Your task to perform on an android device: turn off wifi Image 0: 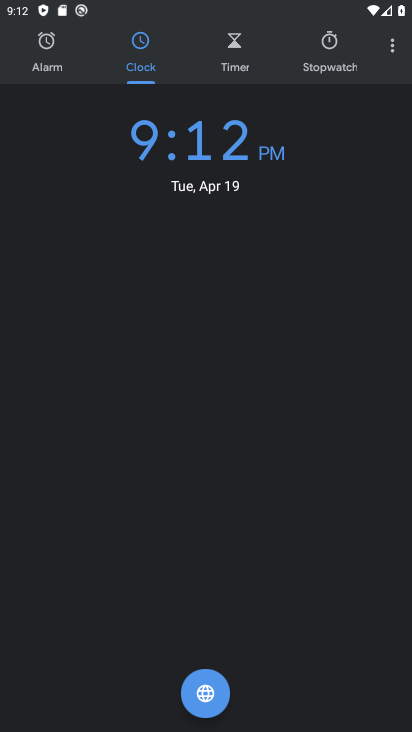
Step 0: press home button
Your task to perform on an android device: turn off wifi Image 1: 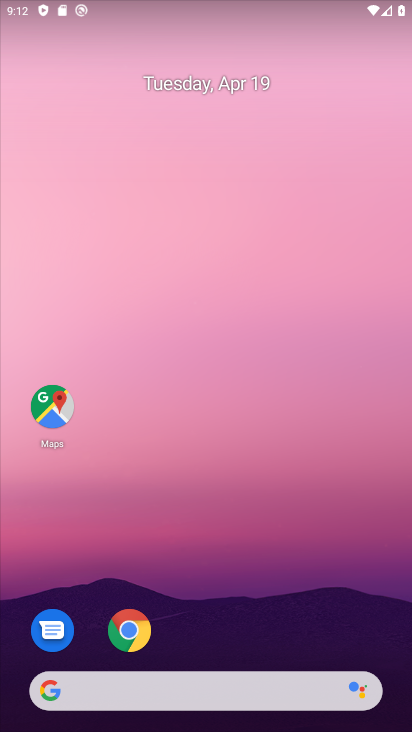
Step 1: drag from (215, 408) to (299, 0)
Your task to perform on an android device: turn off wifi Image 2: 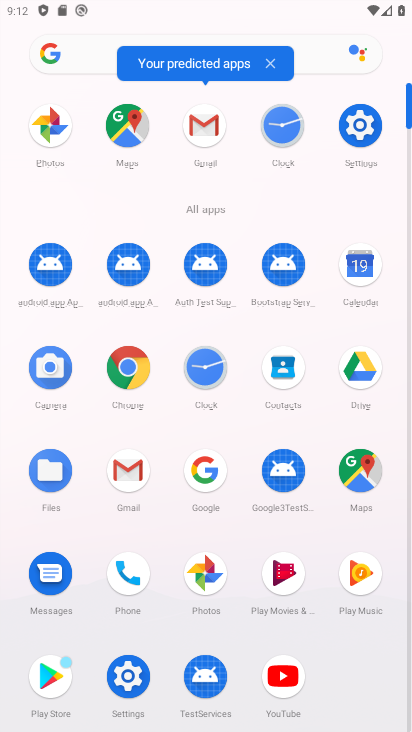
Step 2: click (299, 0)
Your task to perform on an android device: turn off wifi Image 3: 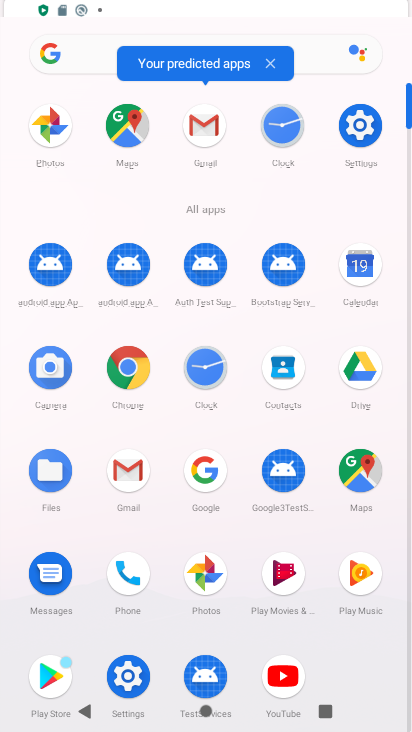
Step 3: click (363, 123)
Your task to perform on an android device: turn off wifi Image 4: 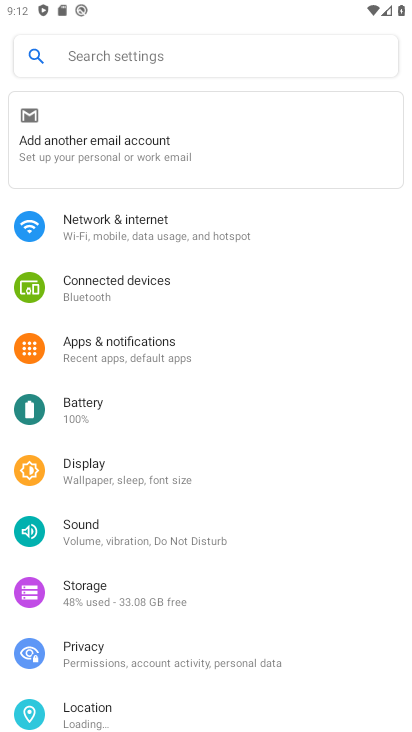
Step 4: click (161, 220)
Your task to perform on an android device: turn off wifi Image 5: 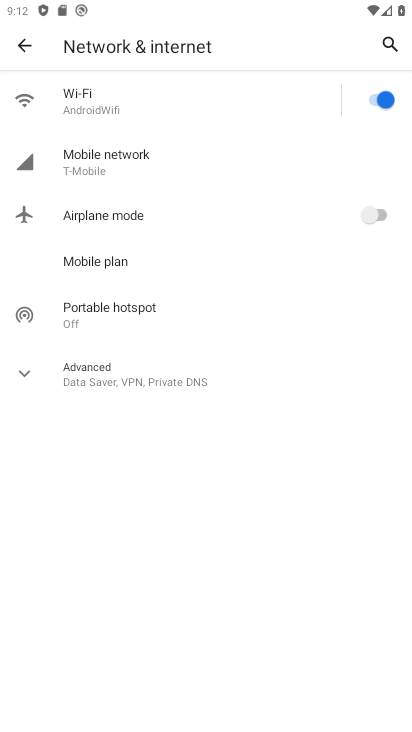
Step 5: click (384, 106)
Your task to perform on an android device: turn off wifi Image 6: 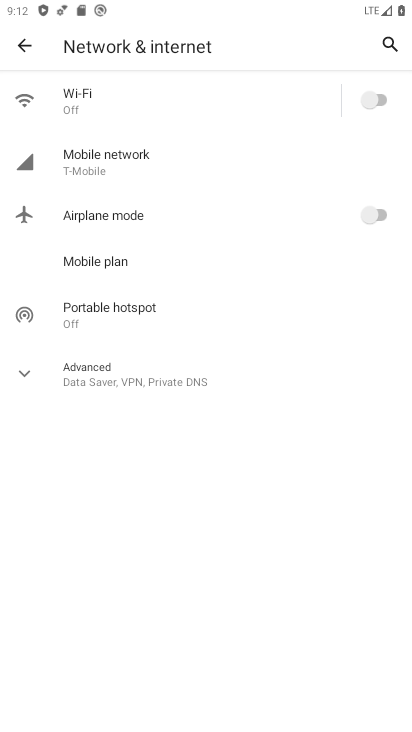
Step 6: task complete